Your task to perform on an android device: Go to location settings Image 0: 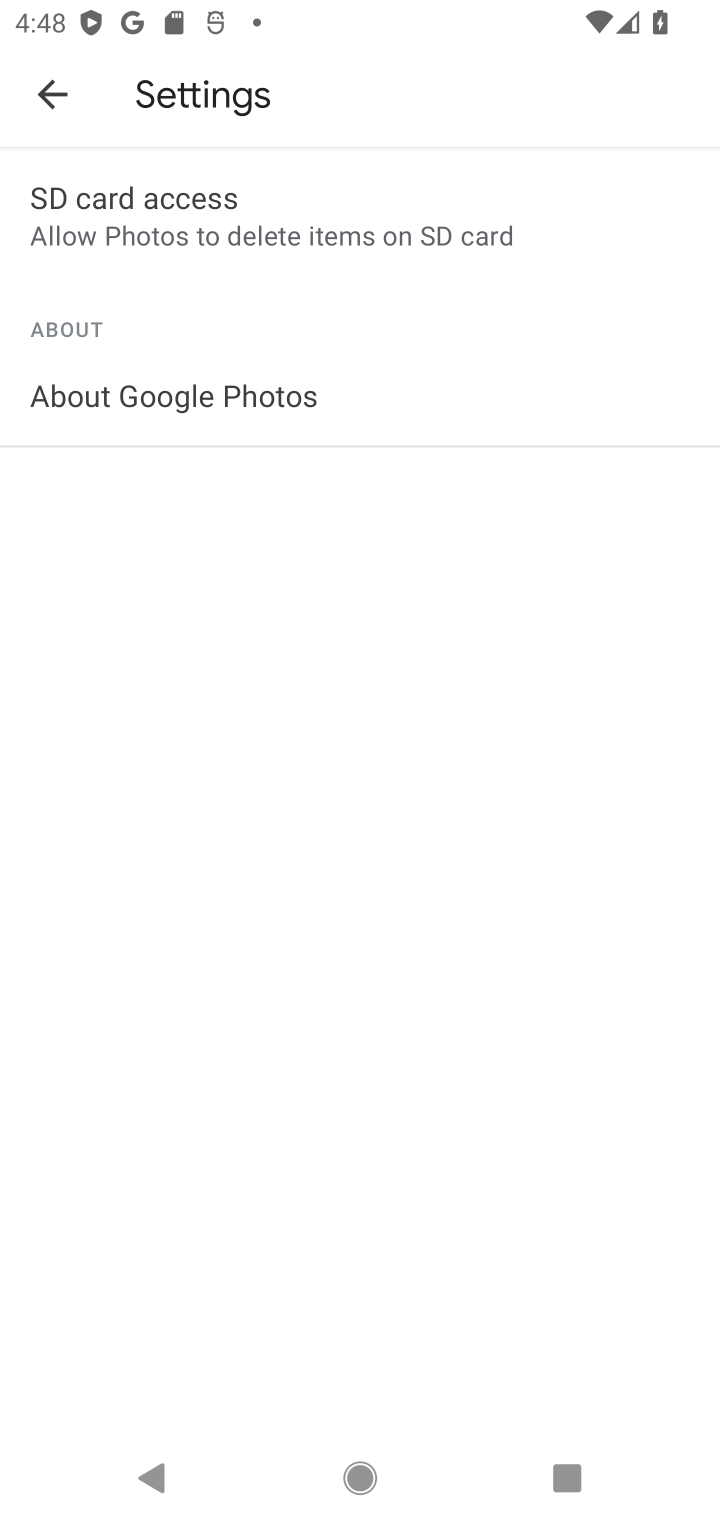
Step 0: press home button
Your task to perform on an android device: Go to location settings Image 1: 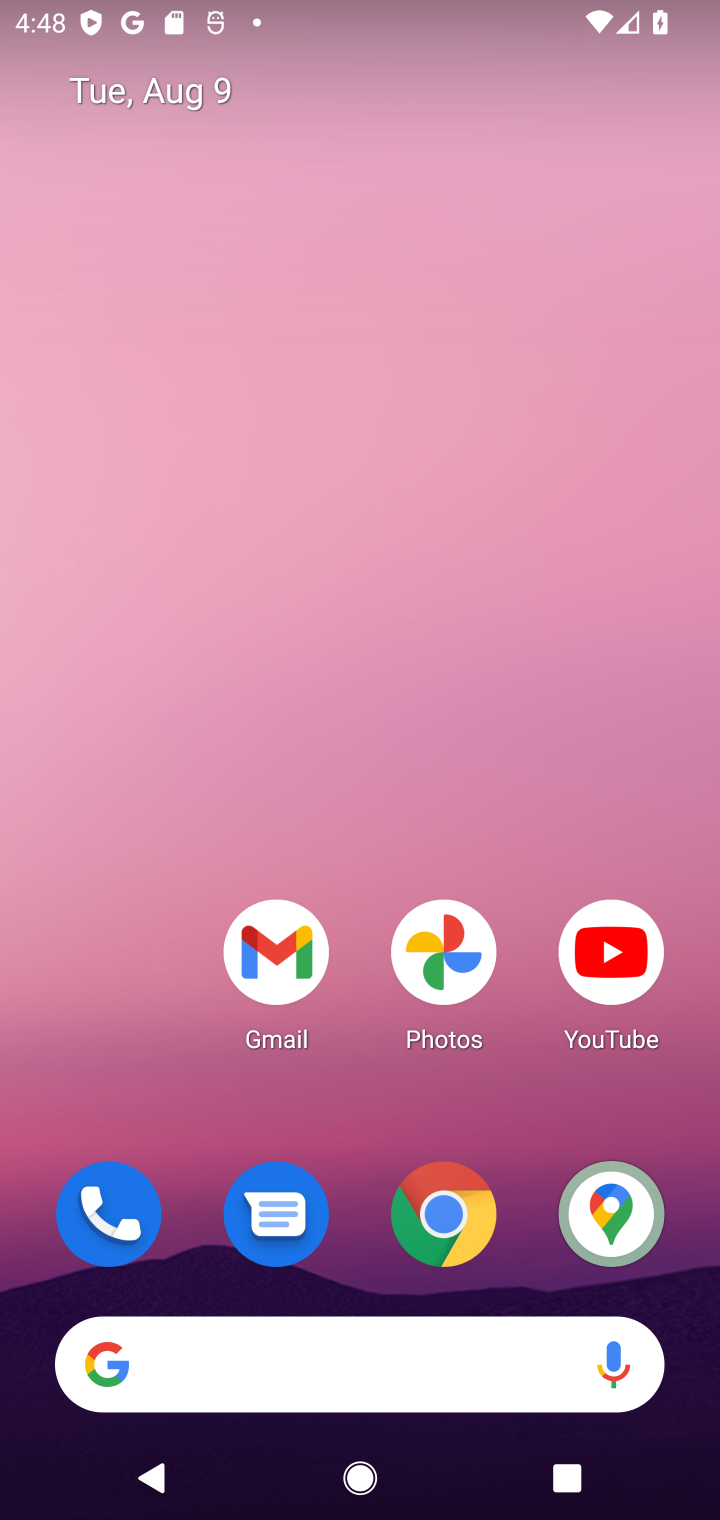
Step 1: drag from (460, 1405) to (381, 450)
Your task to perform on an android device: Go to location settings Image 2: 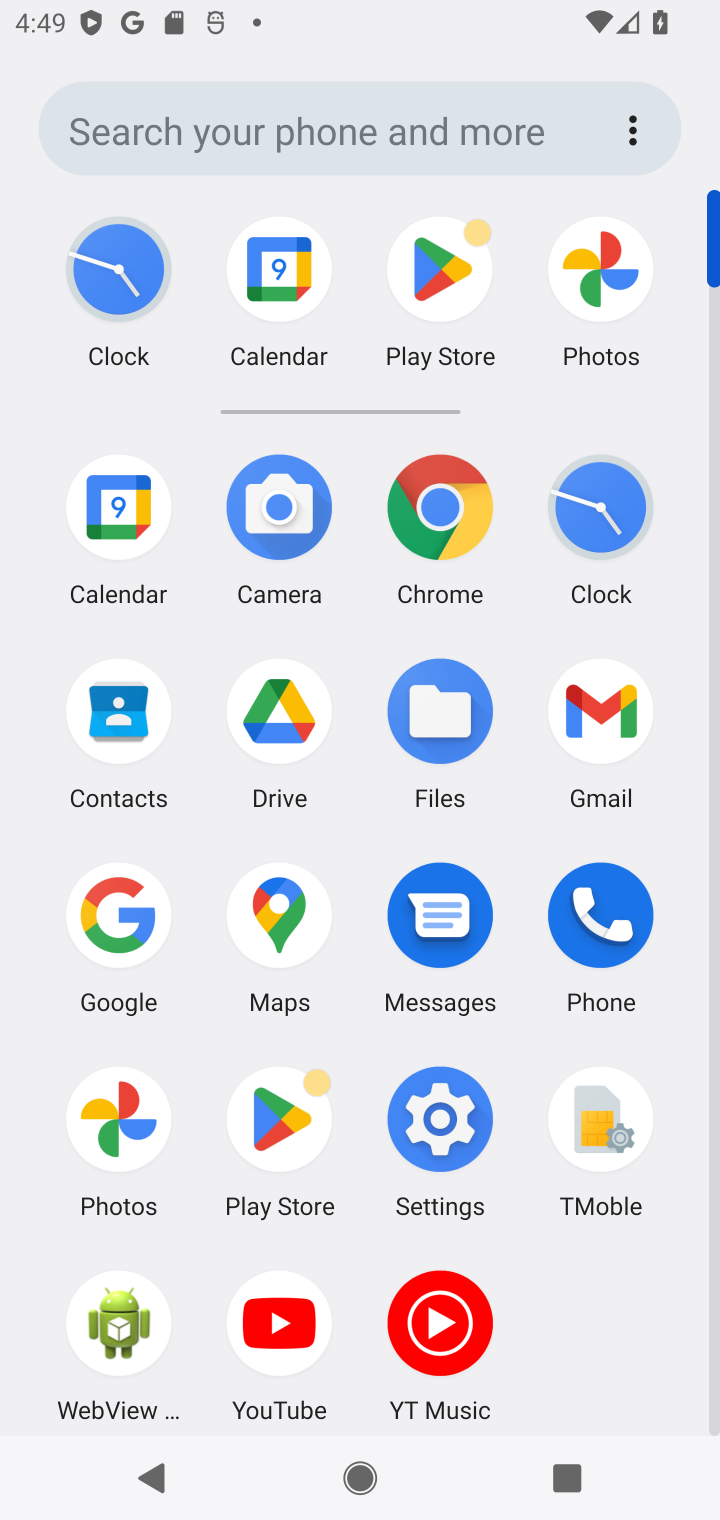
Step 2: drag from (425, 1149) to (578, 1277)
Your task to perform on an android device: Go to location settings Image 3: 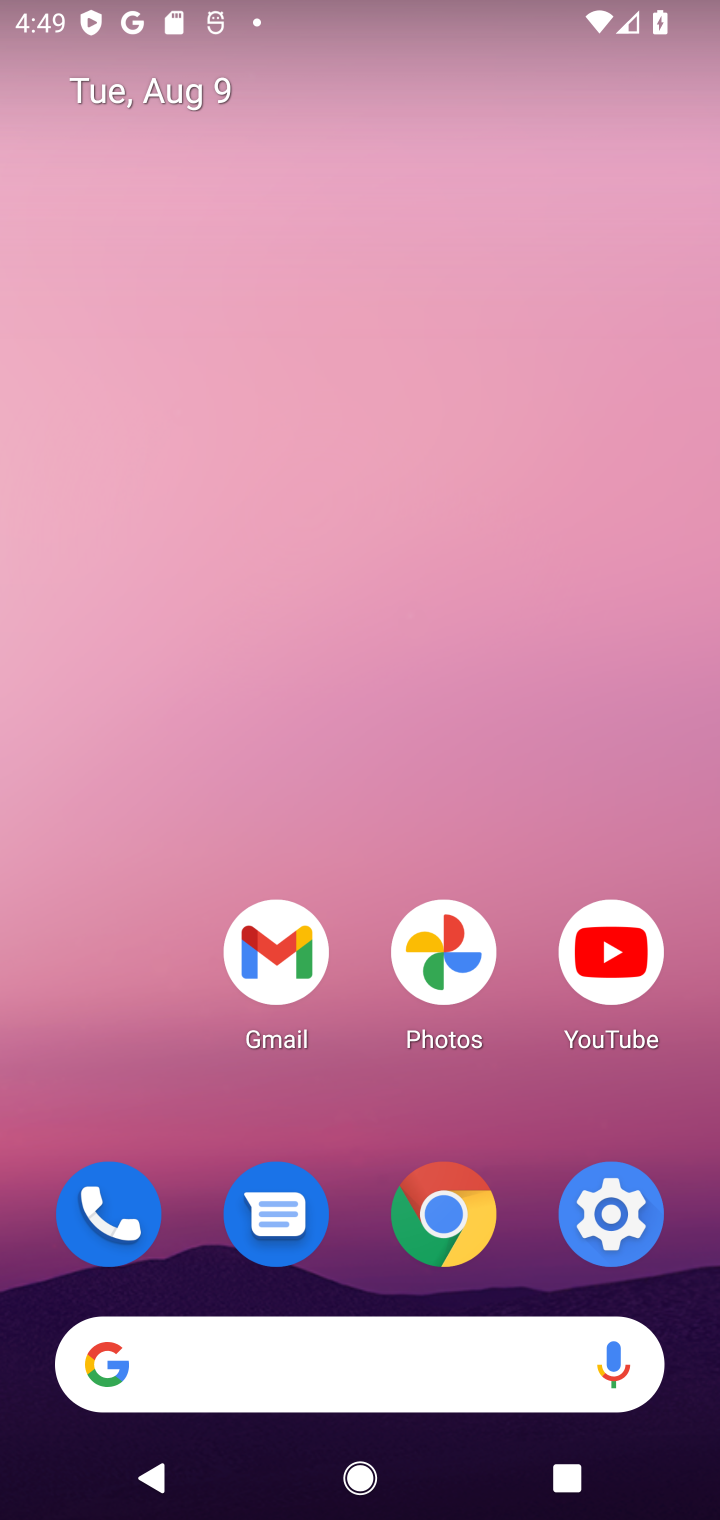
Step 3: click (608, 1200)
Your task to perform on an android device: Go to location settings Image 4: 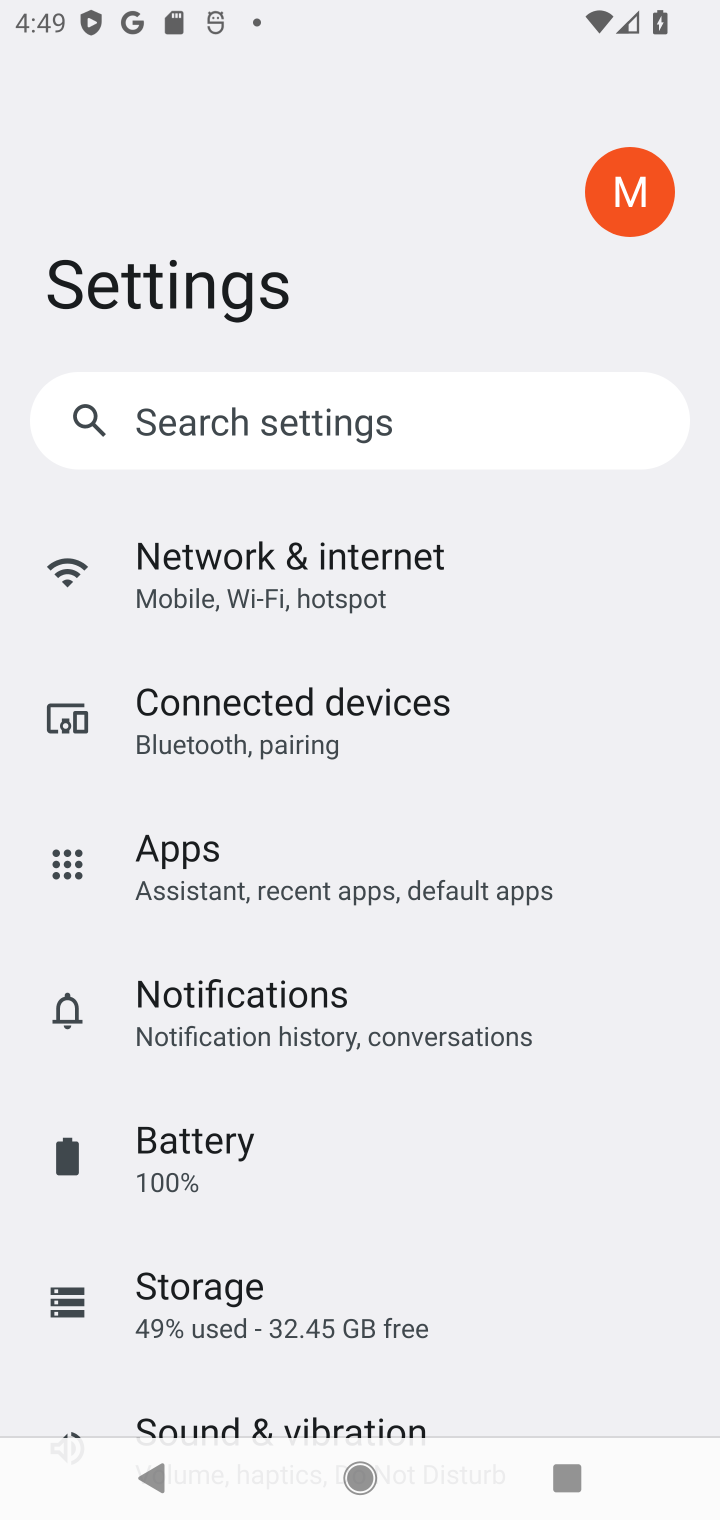
Step 4: click (243, 412)
Your task to perform on an android device: Go to location settings Image 5: 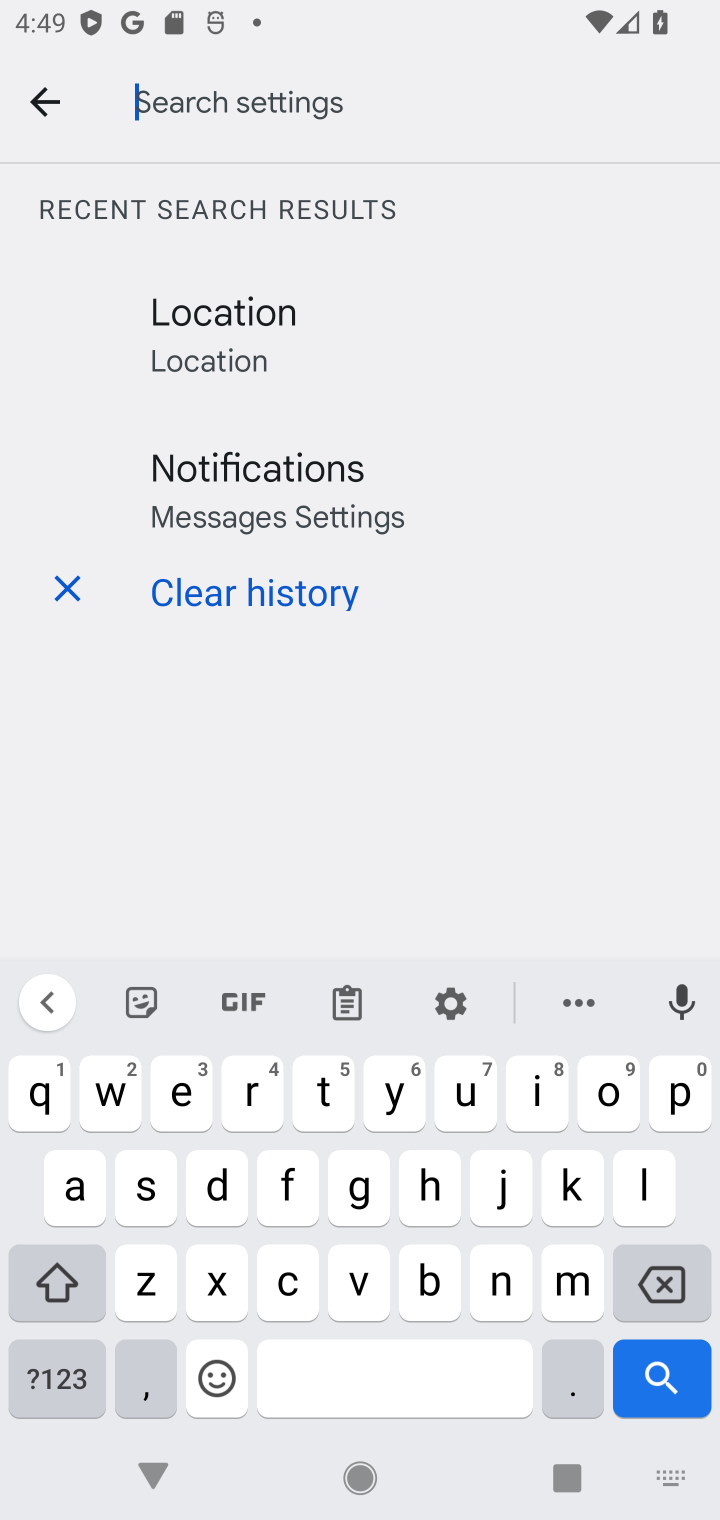
Step 5: click (269, 327)
Your task to perform on an android device: Go to location settings Image 6: 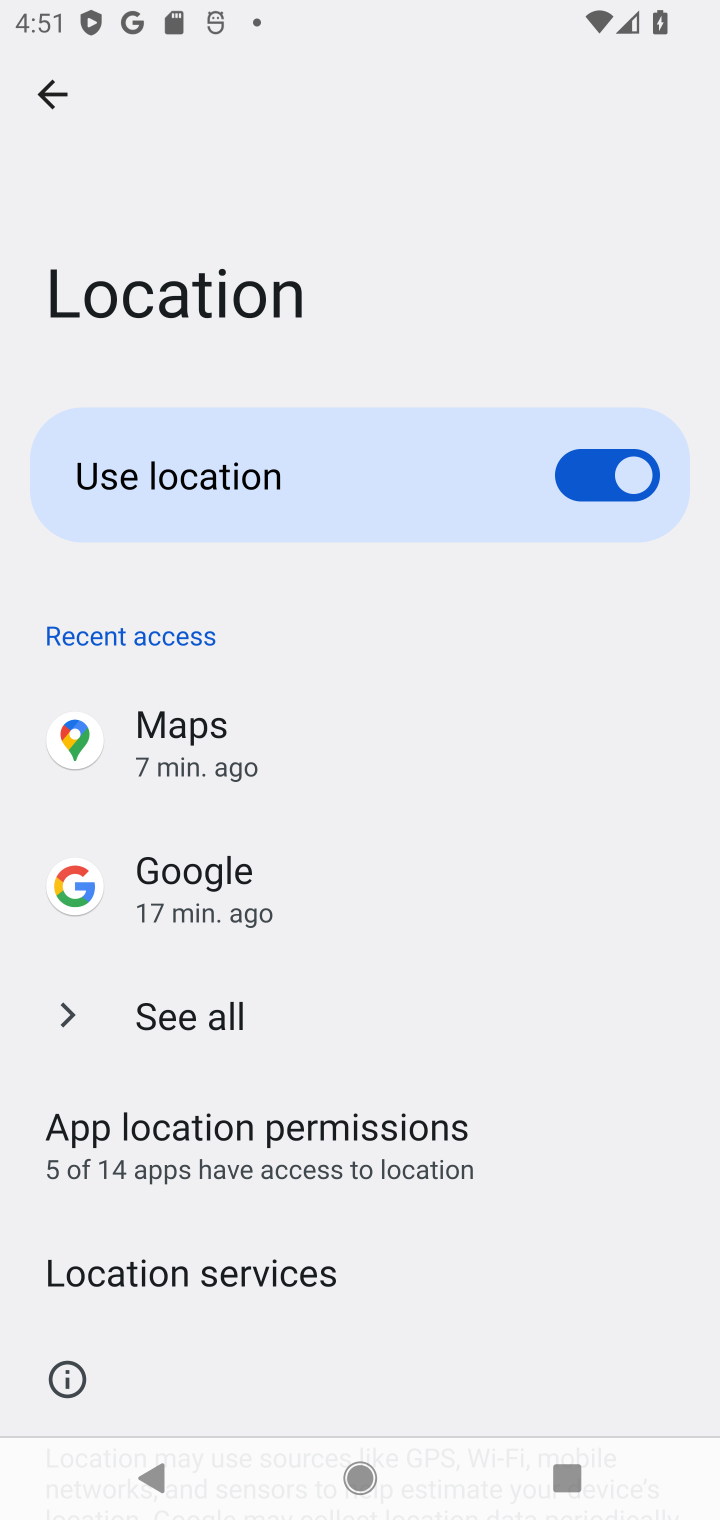
Step 6: task complete